Your task to perform on an android device: Go to ESPN.com Image 0: 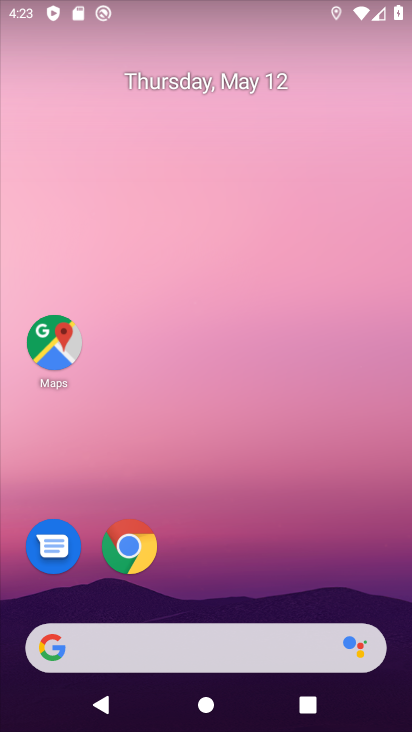
Step 0: drag from (226, 566) to (162, 89)
Your task to perform on an android device: Go to ESPN.com Image 1: 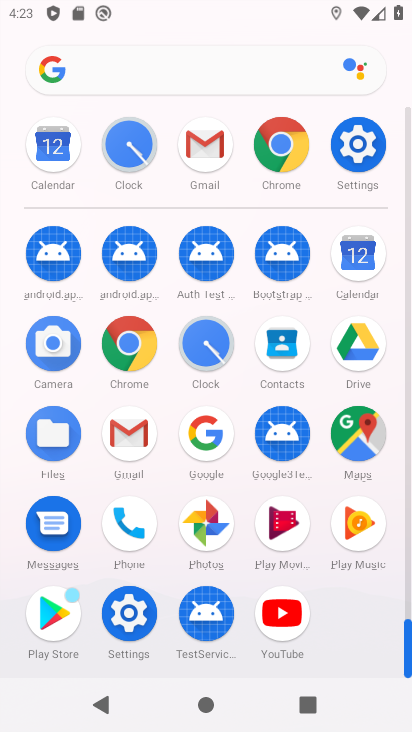
Step 1: click (283, 141)
Your task to perform on an android device: Go to ESPN.com Image 2: 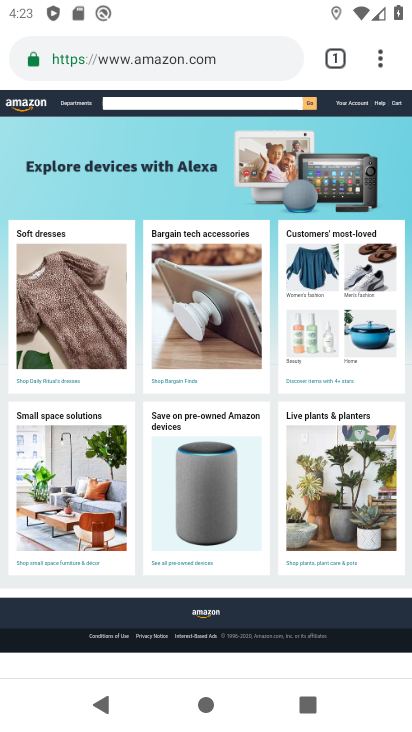
Step 2: click (187, 63)
Your task to perform on an android device: Go to ESPN.com Image 3: 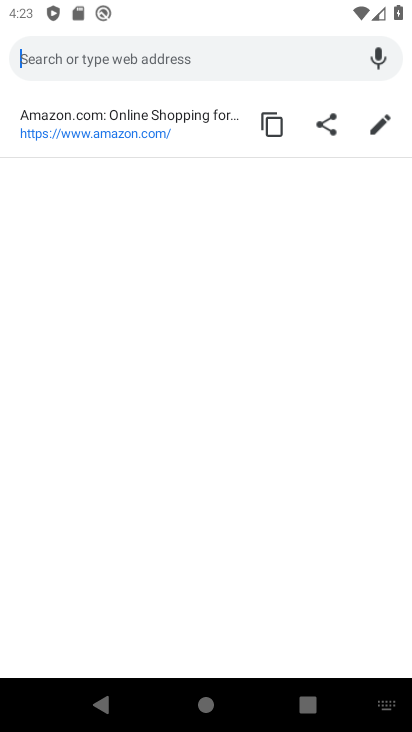
Step 3: type "ESPN.com"
Your task to perform on an android device: Go to ESPN.com Image 4: 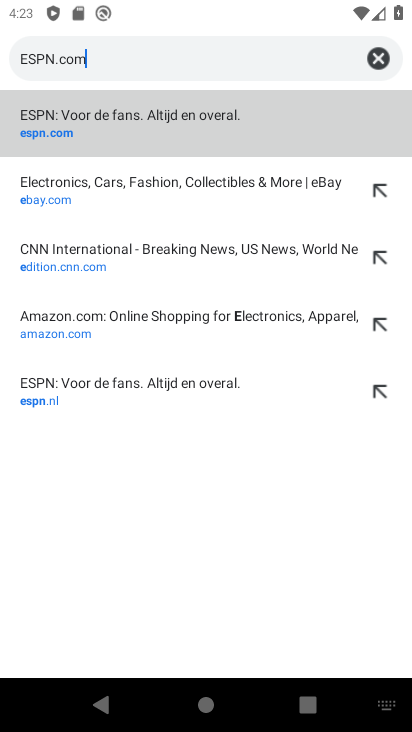
Step 4: type ""
Your task to perform on an android device: Go to ESPN.com Image 5: 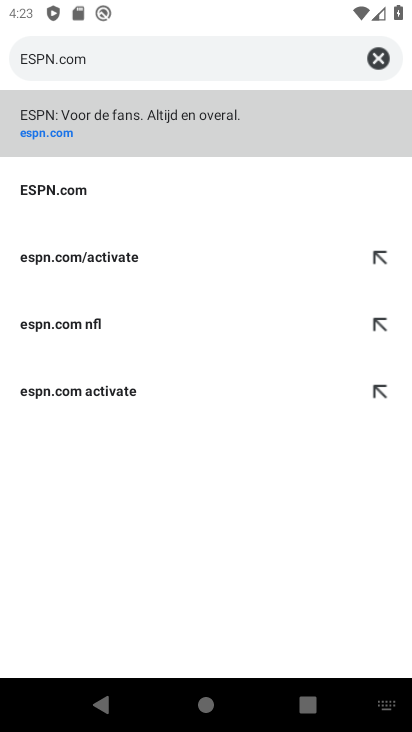
Step 5: click (78, 114)
Your task to perform on an android device: Go to ESPN.com Image 6: 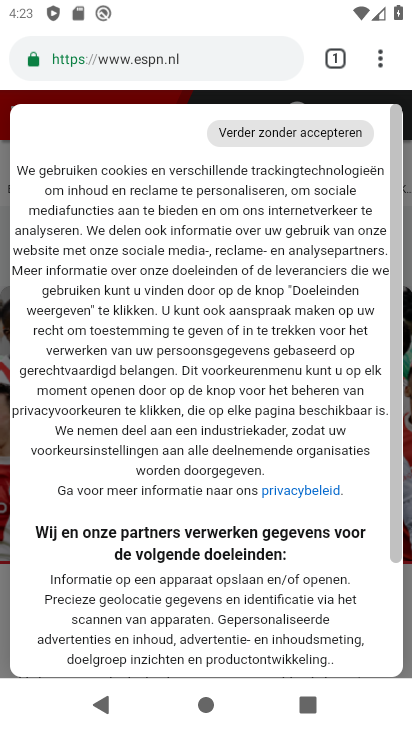
Step 6: task complete